Your task to perform on an android device: turn off airplane mode Image 0: 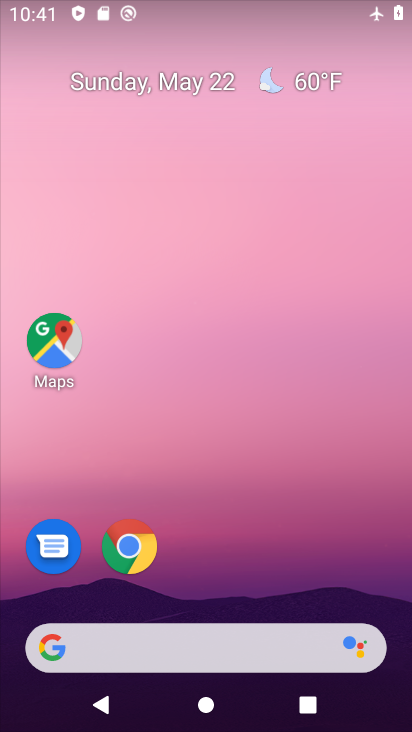
Step 0: drag from (238, 693) to (268, 111)
Your task to perform on an android device: turn off airplane mode Image 1: 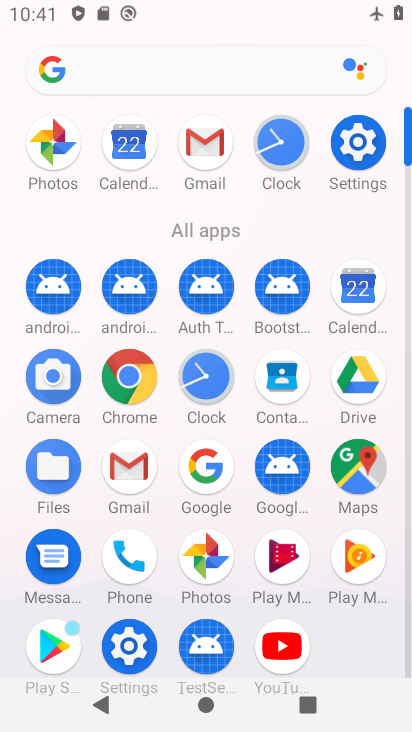
Step 1: click (366, 149)
Your task to perform on an android device: turn off airplane mode Image 2: 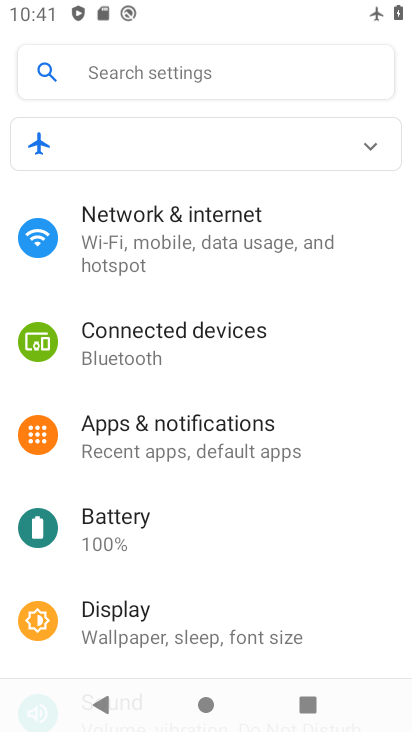
Step 2: click (194, 230)
Your task to perform on an android device: turn off airplane mode Image 3: 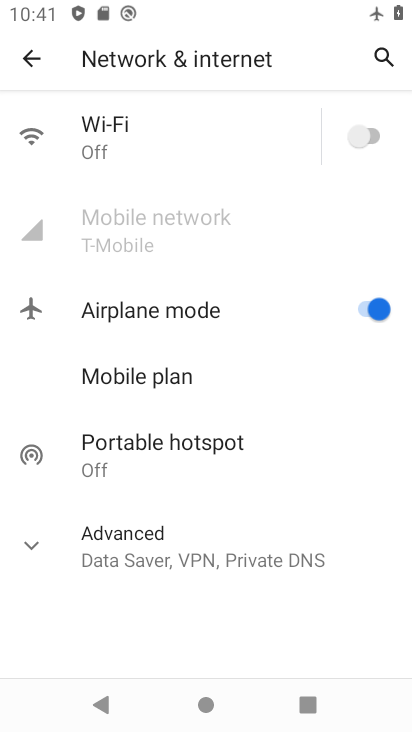
Step 3: click (357, 311)
Your task to perform on an android device: turn off airplane mode Image 4: 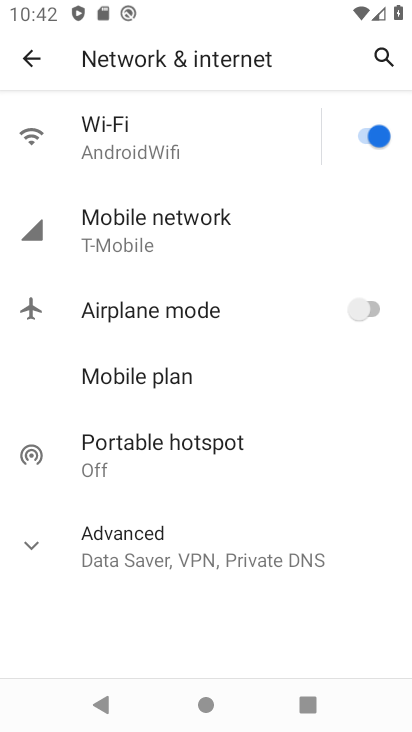
Step 4: task complete